Your task to perform on an android device: Is it going to rain tomorrow? Image 0: 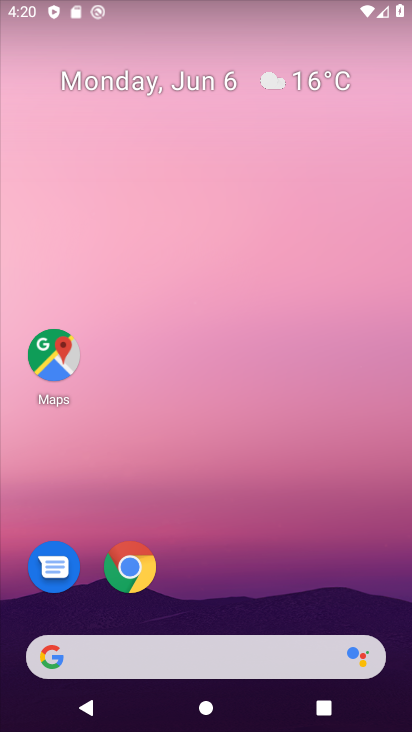
Step 0: click (288, 83)
Your task to perform on an android device: Is it going to rain tomorrow? Image 1: 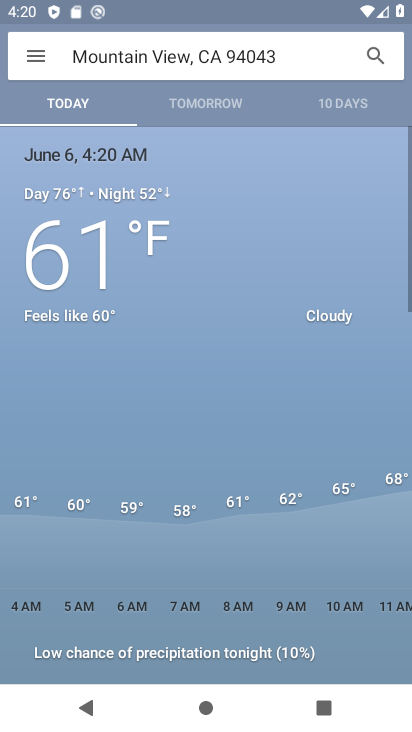
Step 1: click (218, 104)
Your task to perform on an android device: Is it going to rain tomorrow? Image 2: 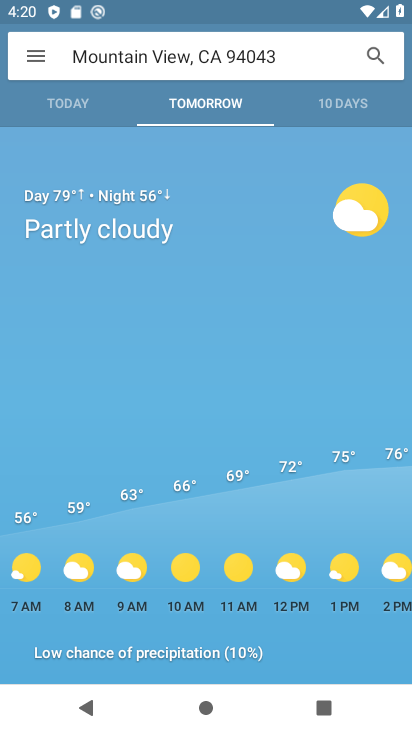
Step 2: task complete